Your task to perform on an android device: Clear the shopping cart on walmart. Search for "dell xps" on walmart, select the first entry, add it to the cart, then select checkout. Image 0: 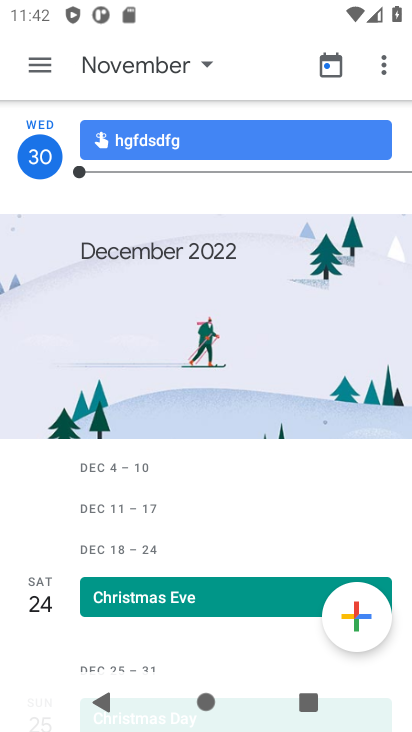
Step 0: press home button
Your task to perform on an android device: Clear the shopping cart on walmart. Search for "dell xps" on walmart, select the first entry, add it to the cart, then select checkout. Image 1: 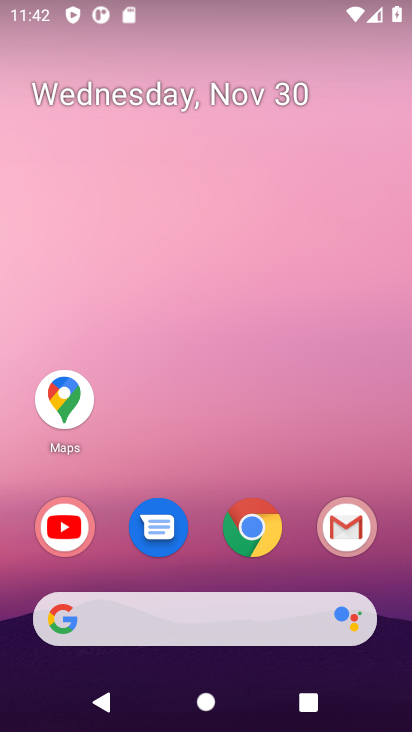
Step 1: click (260, 531)
Your task to perform on an android device: Clear the shopping cart on walmart. Search for "dell xps" on walmart, select the first entry, add it to the cart, then select checkout. Image 2: 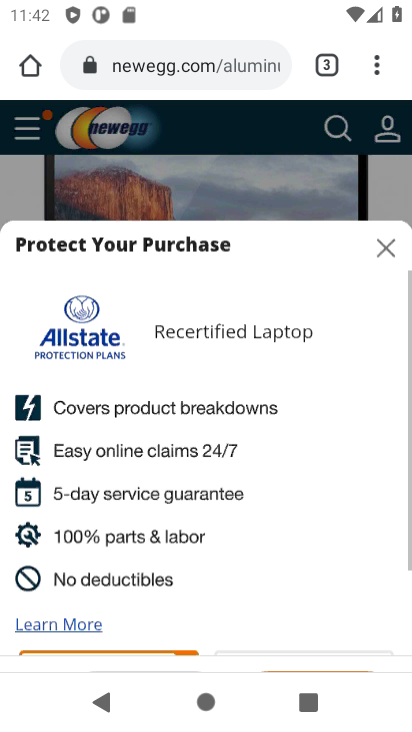
Step 2: click (148, 77)
Your task to perform on an android device: Clear the shopping cart on walmart. Search for "dell xps" on walmart, select the first entry, add it to the cart, then select checkout. Image 3: 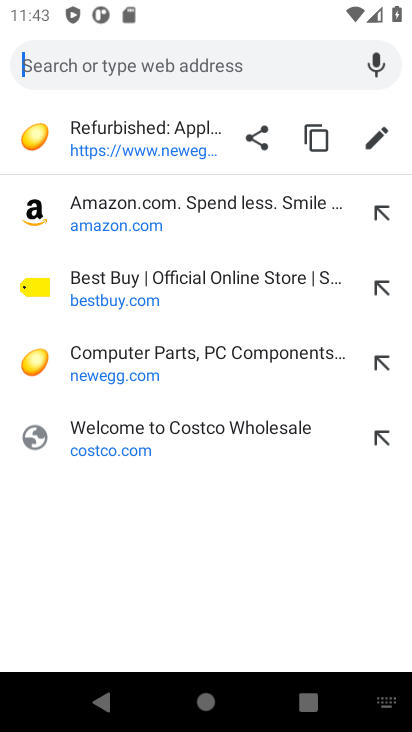
Step 3: type "walmart.com"
Your task to perform on an android device: Clear the shopping cart on walmart. Search for "dell xps" on walmart, select the first entry, add it to the cart, then select checkout. Image 4: 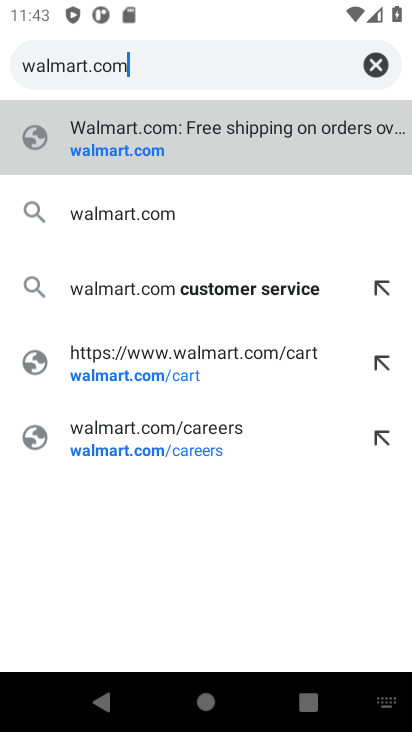
Step 4: click (120, 147)
Your task to perform on an android device: Clear the shopping cart on walmart. Search for "dell xps" on walmart, select the first entry, add it to the cart, then select checkout. Image 5: 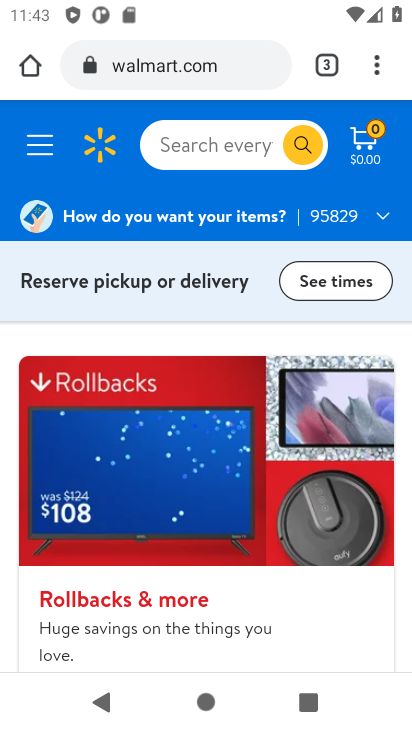
Step 5: click (360, 151)
Your task to perform on an android device: Clear the shopping cart on walmart. Search for "dell xps" on walmart, select the first entry, add it to the cart, then select checkout. Image 6: 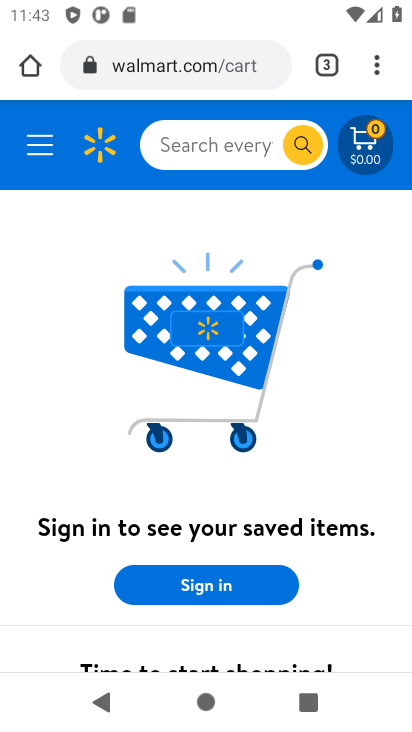
Step 6: click (178, 143)
Your task to perform on an android device: Clear the shopping cart on walmart. Search for "dell xps" on walmart, select the first entry, add it to the cart, then select checkout. Image 7: 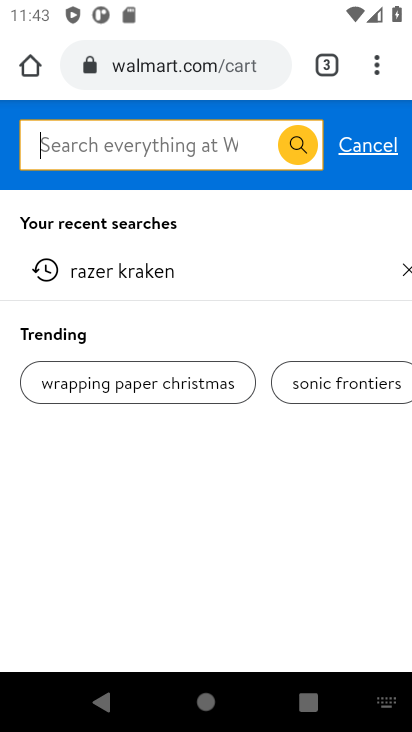
Step 7: type "dell xps"
Your task to perform on an android device: Clear the shopping cart on walmart. Search for "dell xps" on walmart, select the first entry, add it to the cart, then select checkout. Image 8: 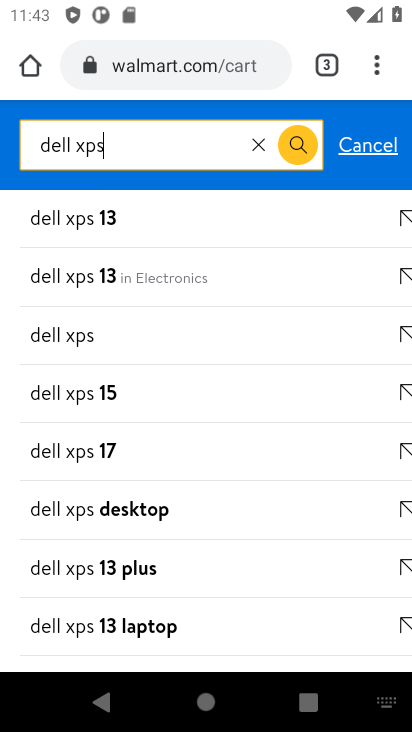
Step 8: click (42, 345)
Your task to perform on an android device: Clear the shopping cart on walmart. Search for "dell xps" on walmart, select the first entry, add it to the cart, then select checkout. Image 9: 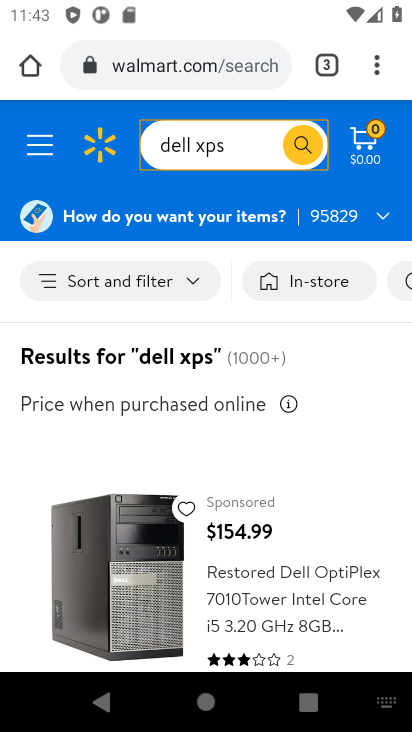
Step 9: task complete